Your task to perform on an android device: turn on wifi Image 0: 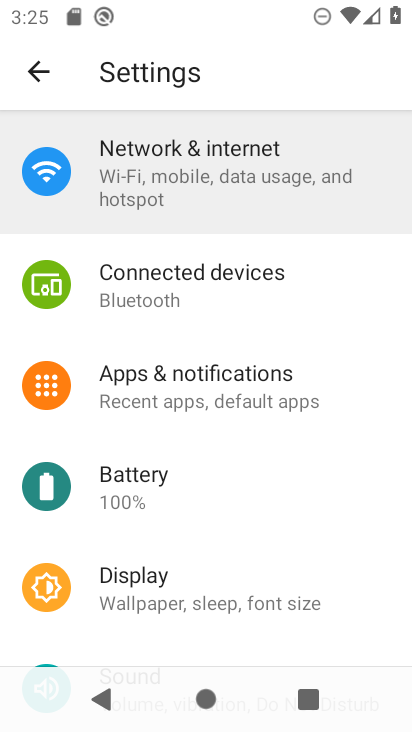
Step 0: drag from (94, 7) to (103, 591)
Your task to perform on an android device: turn on wifi Image 1: 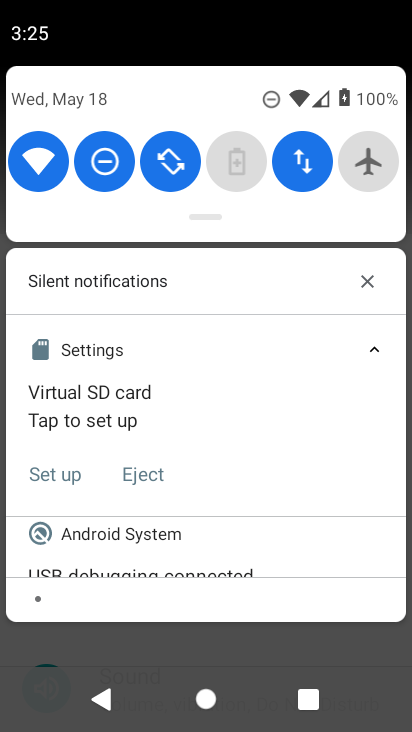
Step 1: task complete